Your task to perform on an android device: turn notification dots on Image 0: 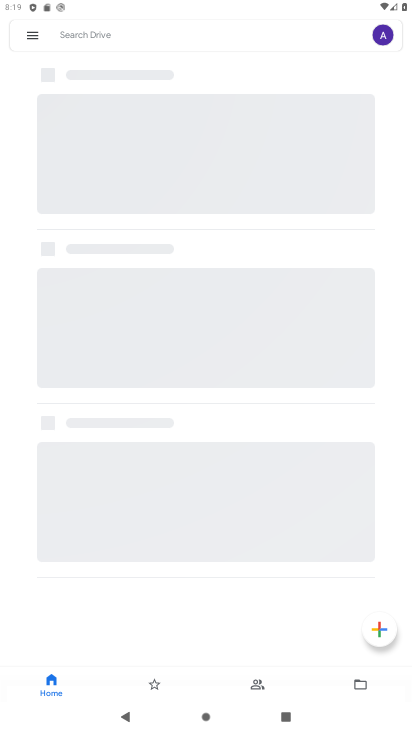
Step 0: press home button
Your task to perform on an android device: turn notification dots on Image 1: 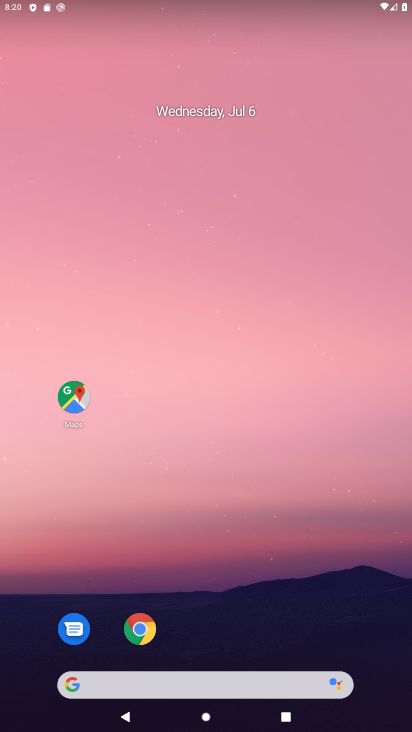
Step 1: drag from (215, 659) to (143, 95)
Your task to perform on an android device: turn notification dots on Image 2: 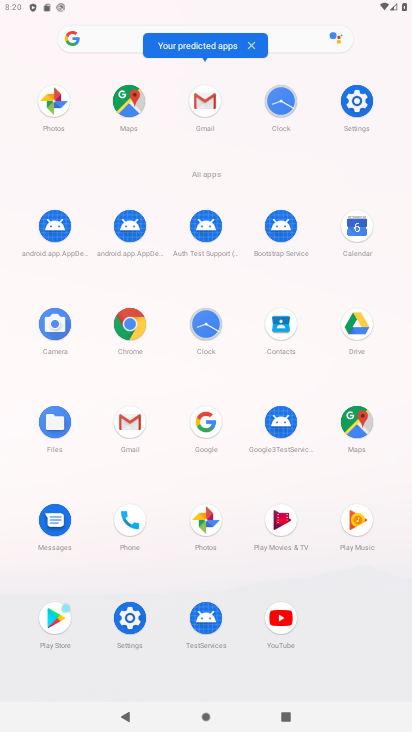
Step 2: click (358, 105)
Your task to perform on an android device: turn notification dots on Image 3: 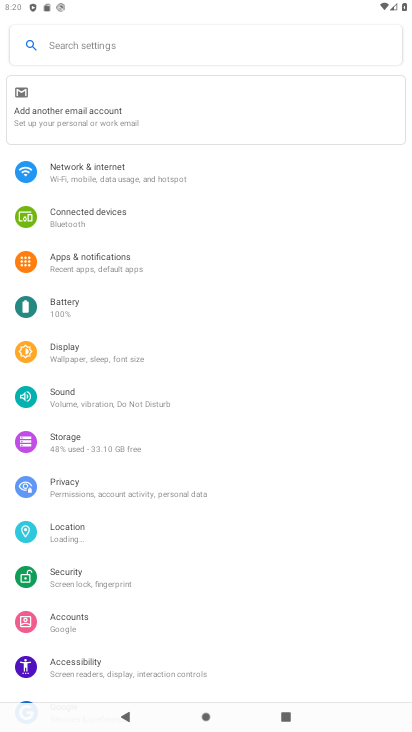
Step 3: click (104, 262)
Your task to perform on an android device: turn notification dots on Image 4: 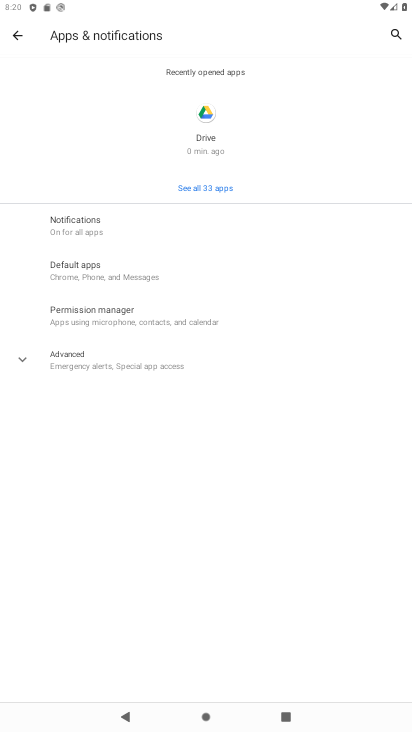
Step 4: click (98, 238)
Your task to perform on an android device: turn notification dots on Image 5: 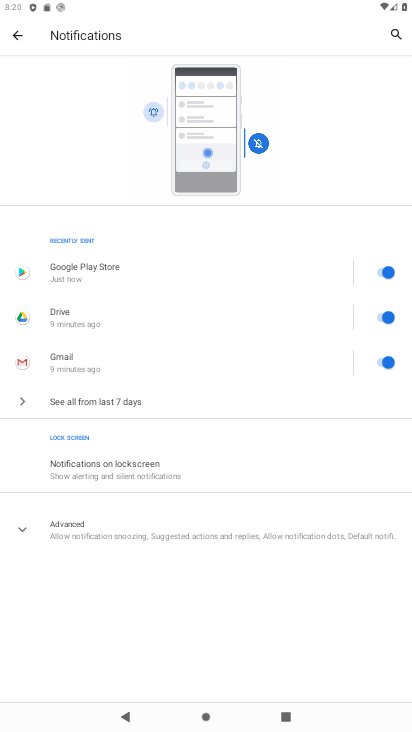
Step 5: click (123, 525)
Your task to perform on an android device: turn notification dots on Image 6: 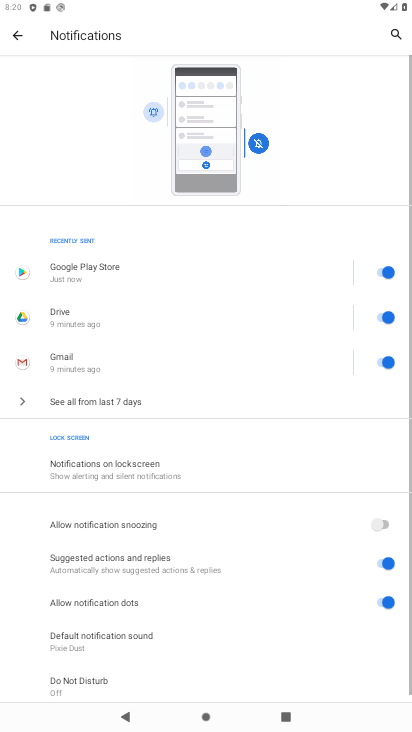
Step 6: task complete